Your task to perform on an android device: set the timer Image 0: 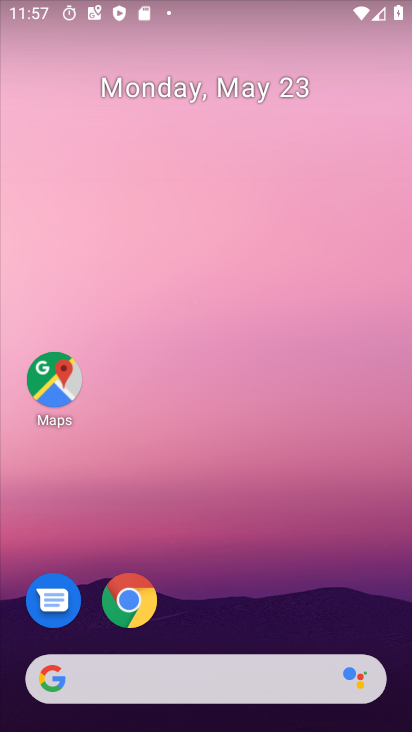
Step 0: drag from (231, 634) to (238, 101)
Your task to perform on an android device: set the timer Image 1: 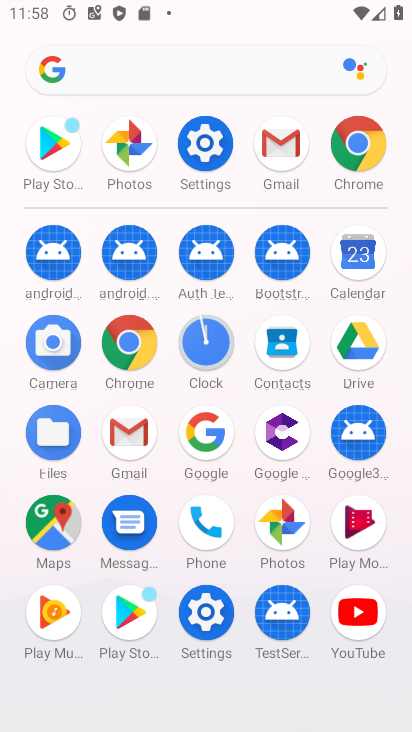
Step 1: click (207, 326)
Your task to perform on an android device: set the timer Image 2: 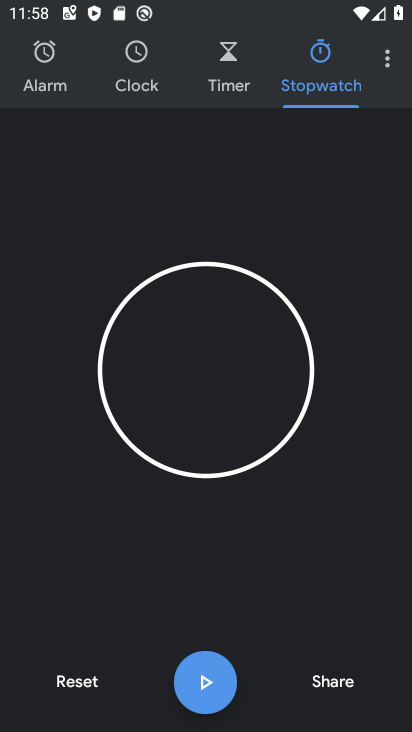
Step 2: click (241, 69)
Your task to perform on an android device: set the timer Image 3: 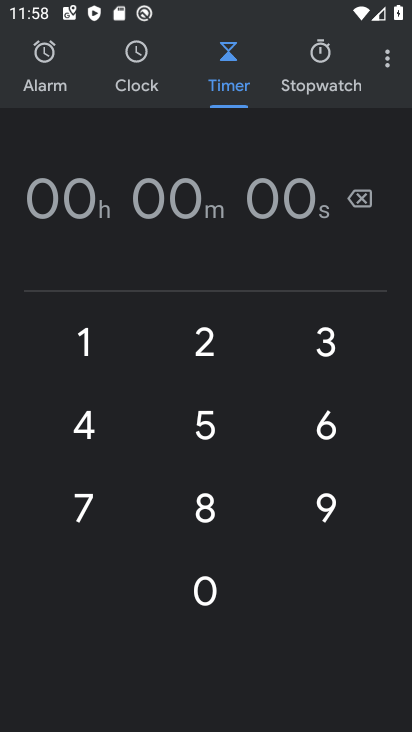
Step 3: click (204, 399)
Your task to perform on an android device: set the timer Image 4: 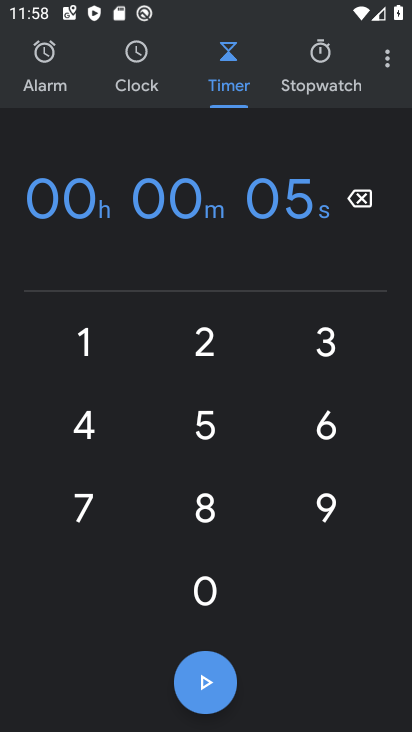
Step 4: task complete